Your task to perform on an android device: See recent photos Image 0: 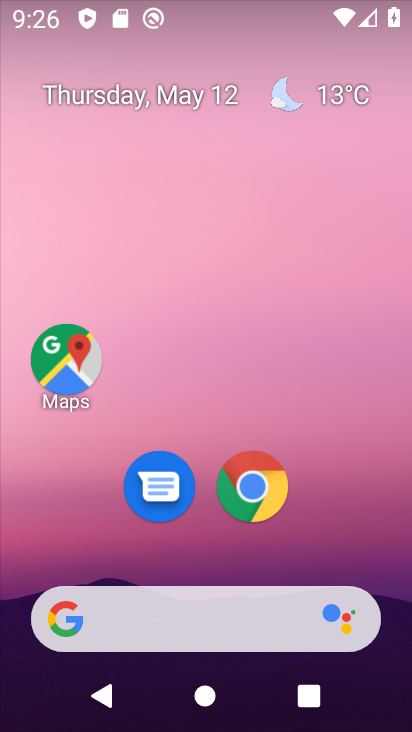
Step 0: drag from (377, 530) to (253, 92)
Your task to perform on an android device: See recent photos Image 1: 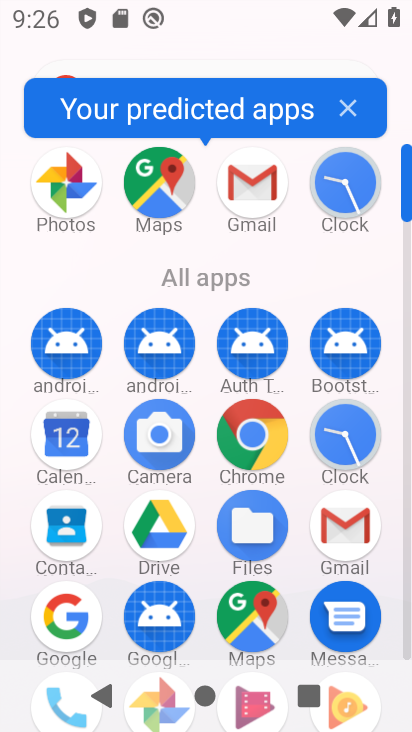
Step 1: drag from (189, 291) to (143, 173)
Your task to perform on an android device: See recent photos Image 2: 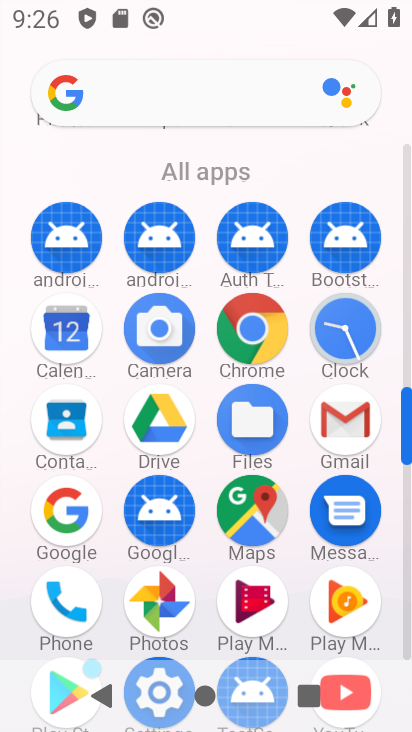
Step 2: click (137, 602)
Your task to perform on an android device: See recent photos Image 3: 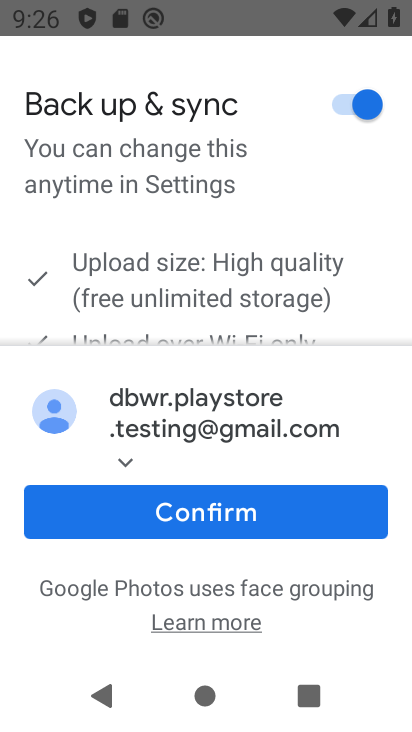
Step 3: click (259, 520)
Your task to perform on an android device: See recent photos Image 4: 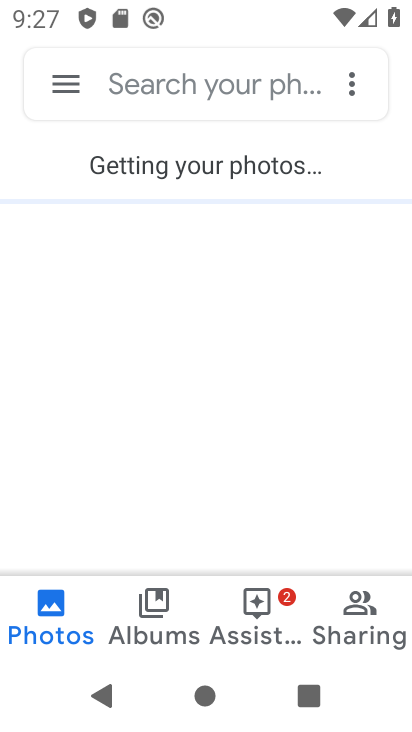
Step 4: task complete